Your task to perform on an android device: Open settings on Google Maps Image 0: 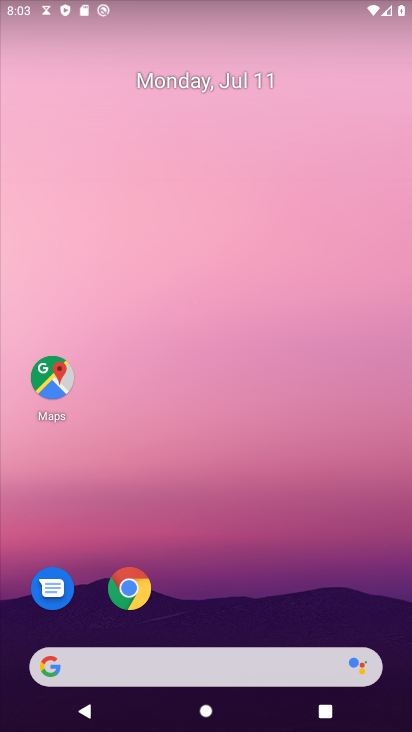
Step 0: press home button
Your task to perform on an android device: Open settings on Google Maps Image 1: 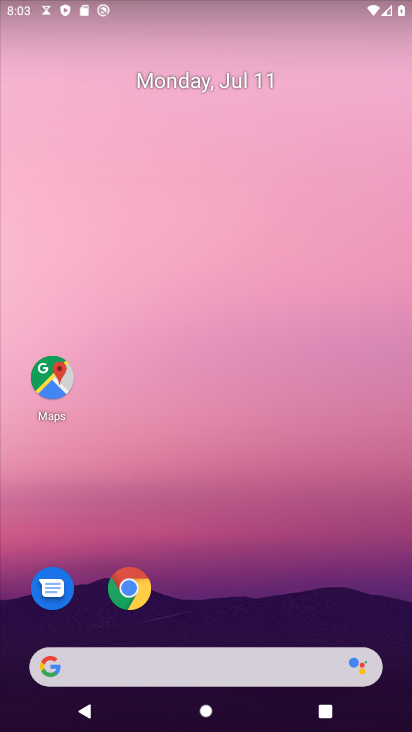
Step 1: click (39, 360)
Your task to perform on an android device: Open settings on Google Maps Image 2: 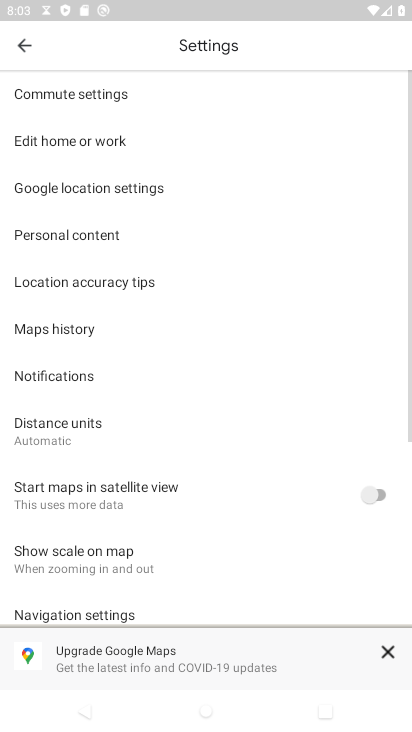
Step 2: click (22, 45)
Your task to perform on an android device: Open settings on Google Maps Image 3: 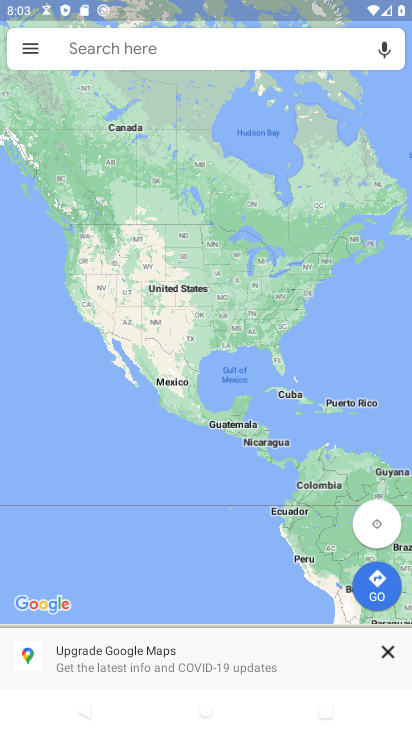
Step 3: click (24, 47)
Your task to perform on an android device: Open settings on Google Maps Image 4: 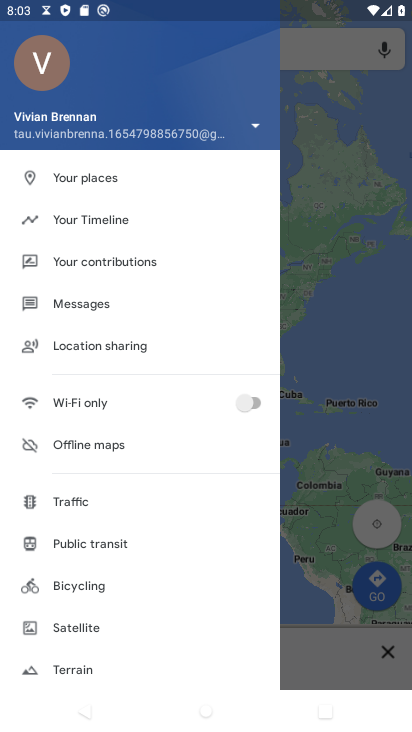
Step 4: drag from (197, 605) to (166, 244)
Your task to perform on an android device: Open settings on Google Maps Image 5: 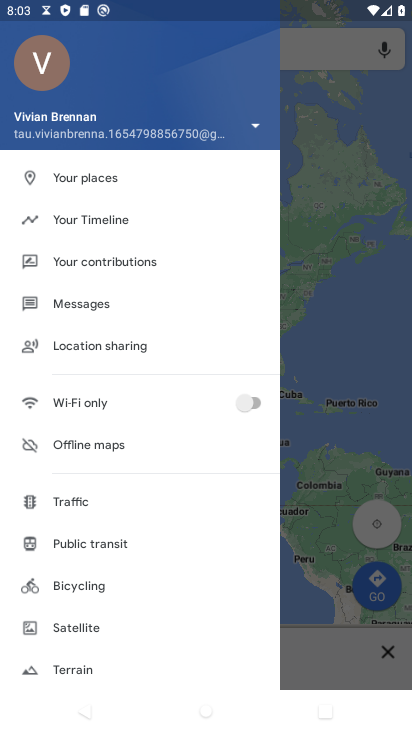
Step 5: drag from (109, 655) to (141, 385)
Your task to perform on an android device: Open settings on Google Maps Image 6: 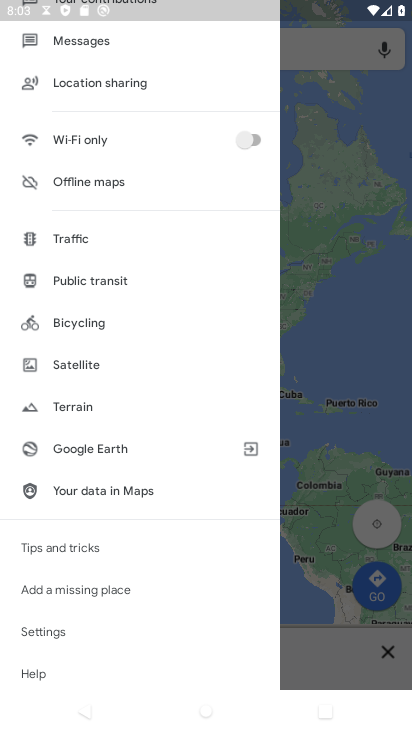
Step 6: click (63, 630)
Your task to perform on an android device: Open settings on Google Maps Image 7: 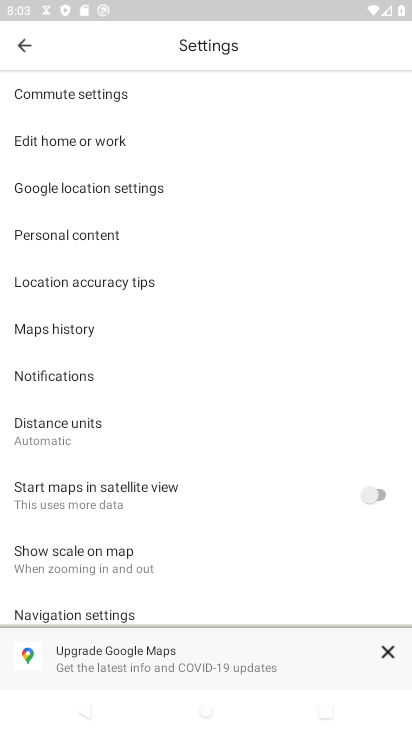
Step 7: click (381, 649)
Your task to perform on an android device: Open settings on Google Maps Image 8: 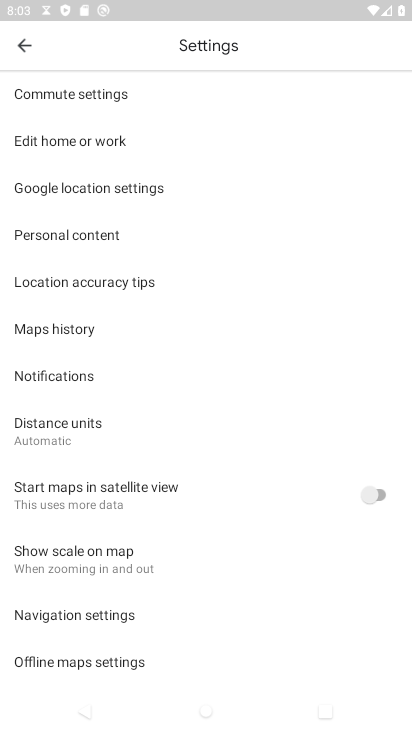
Step 8: task complete